Your task to perform on an android device: change the upload size in google photos Image 0: 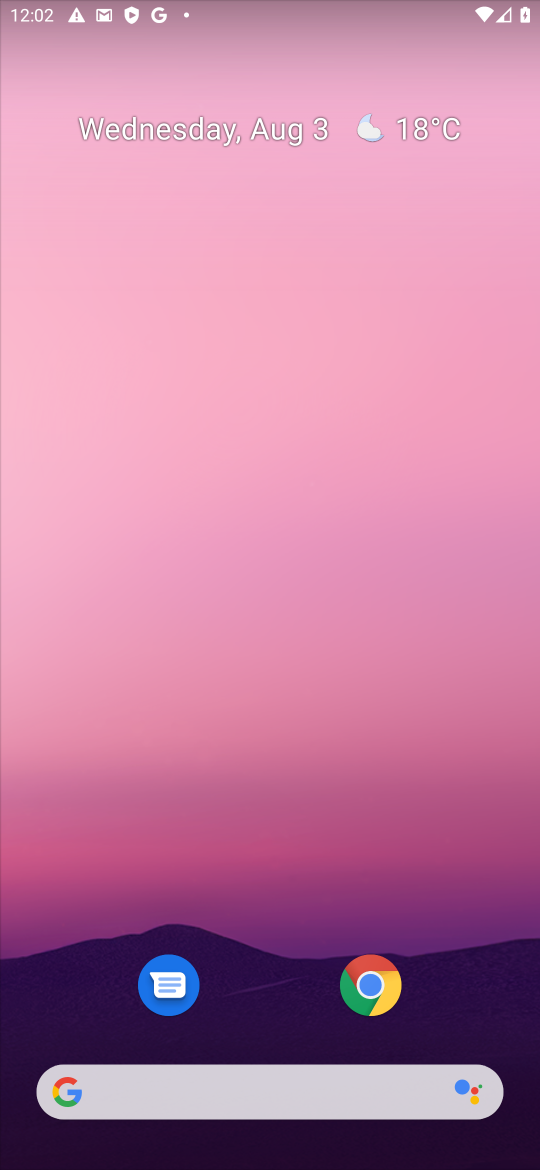
Step 0: drag from (259, 1034) to (320, 190)
Your task to perform on an android device: change the upload size in google photos Image 1: 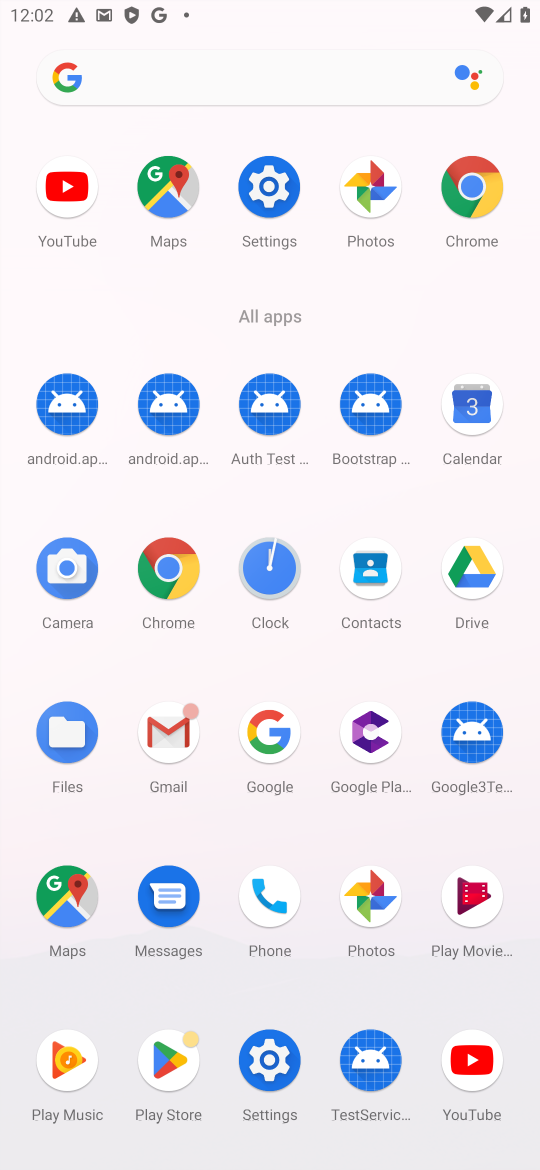
Step 1: click (354, 908)
Your task to perform on an android device: change the upload size in google photos Image 2: 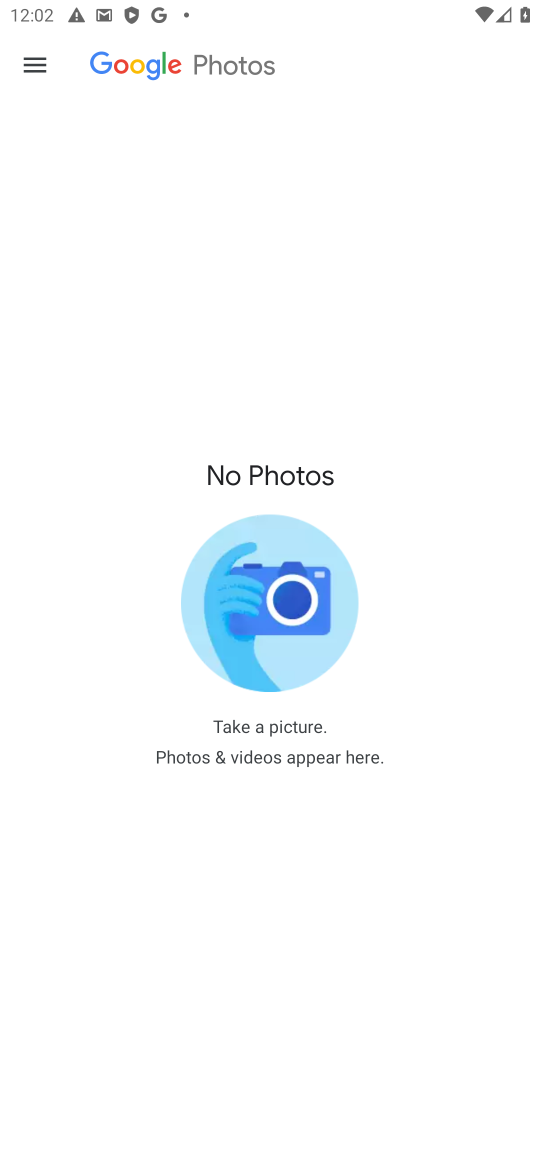
Step 2: click (28, 76)
Your task to perform on an android device: change the upload size in google photos Image 3: 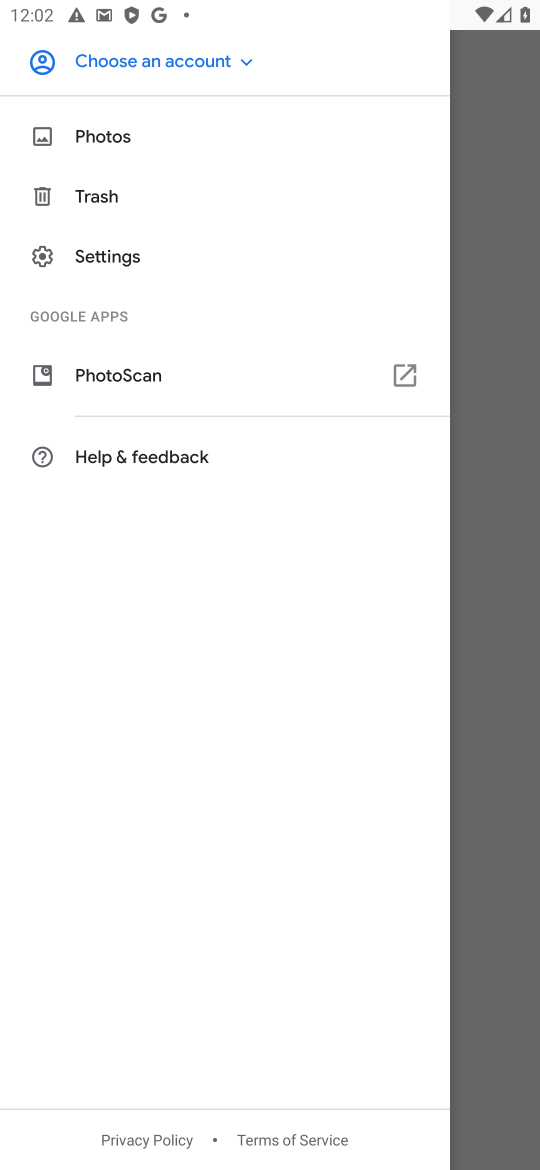
Step 3: click (114, 261)
Your task to perform on an android device: change the upload size in google photos Image 4: 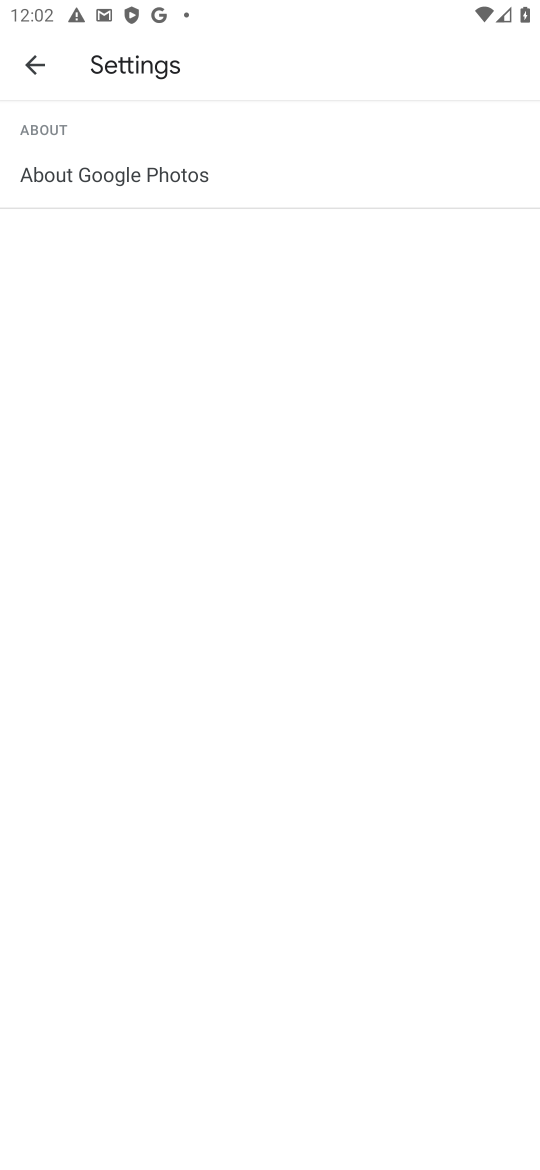
Step 4: click (104, 181)
Your task to perform on an android device: change the upload size in google photos Image 5: 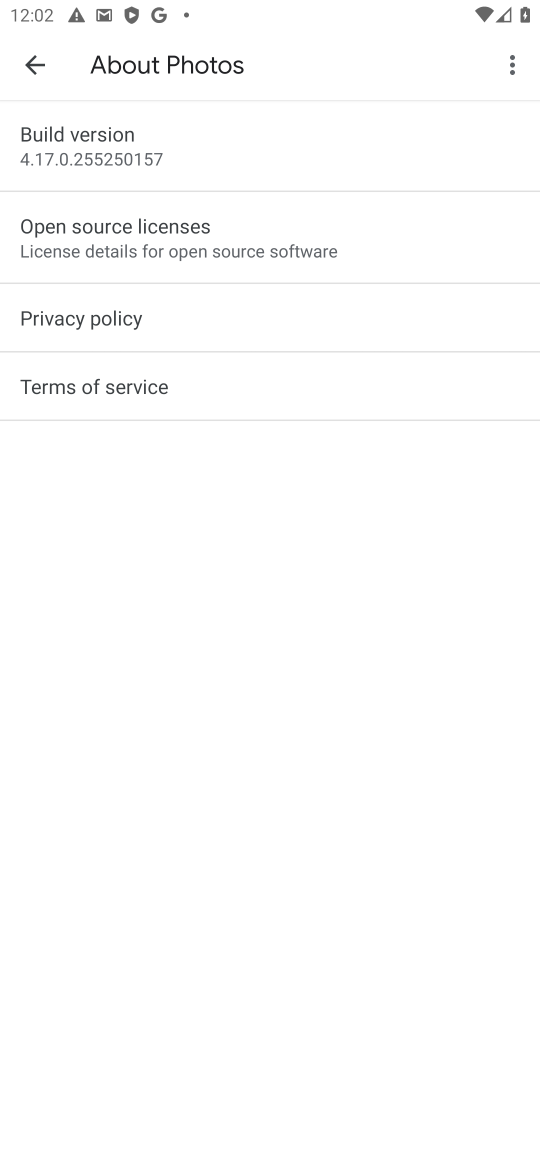
Step 5: task complete